Your task to perform on an android device: How much does a 2 bedroom apartment rent for in New York? Image 0: 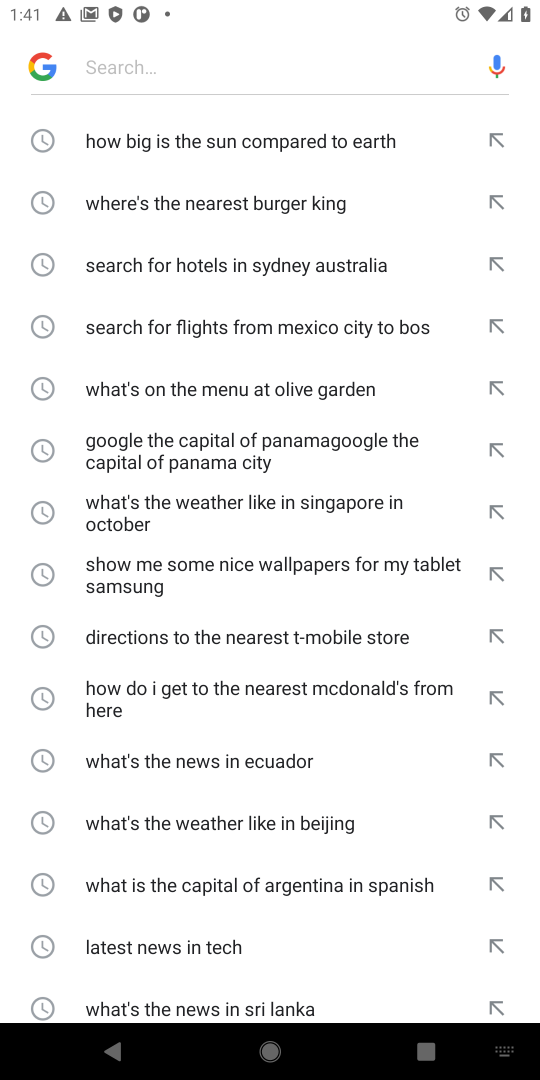
Step 0: type "How much does a 2 bedroom apartment rent for in New York?"
Your task to perform on an android device: How much does a 2 bedroom apartment rent for in New York? Image 1: 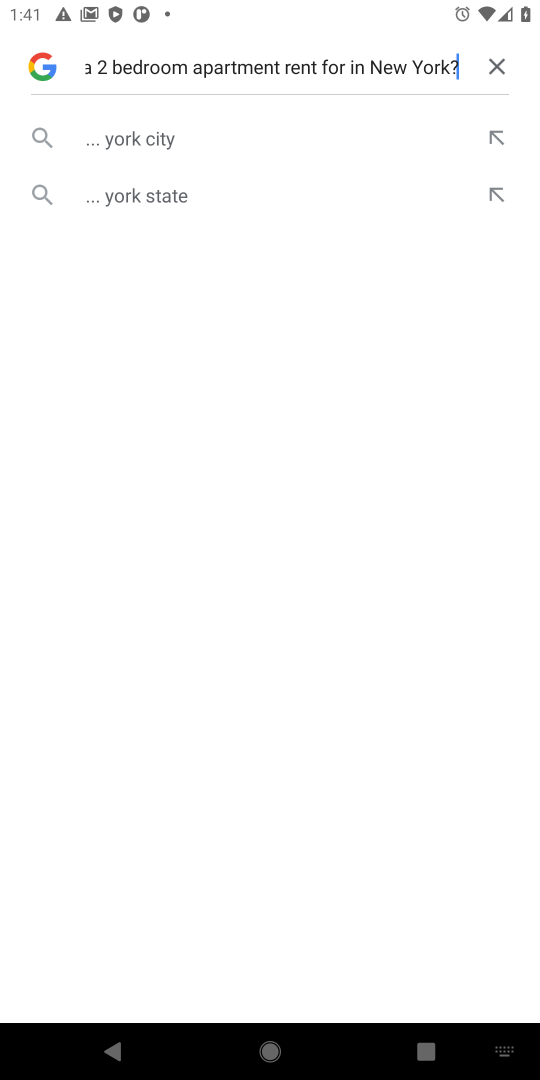
Step 1: click (176, 143)
Your task to perform on an android device: How much does a 2 bedroom apartment rent for in New York? Image 2: 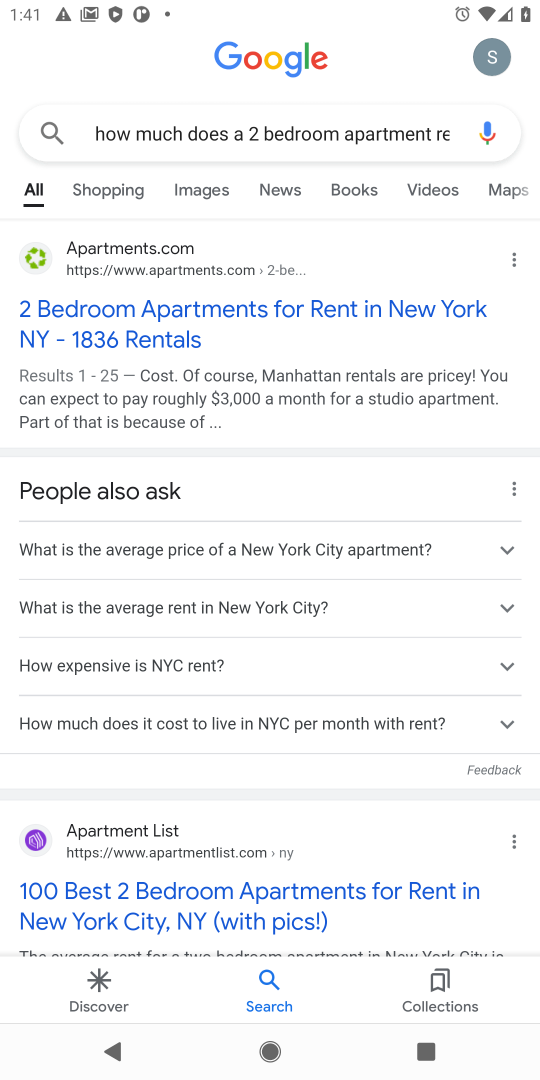
Step 2: click (237, 317)
Your task to perform on an android device: How much does a 2 bedroom apartment rent for in New York? Image 3: 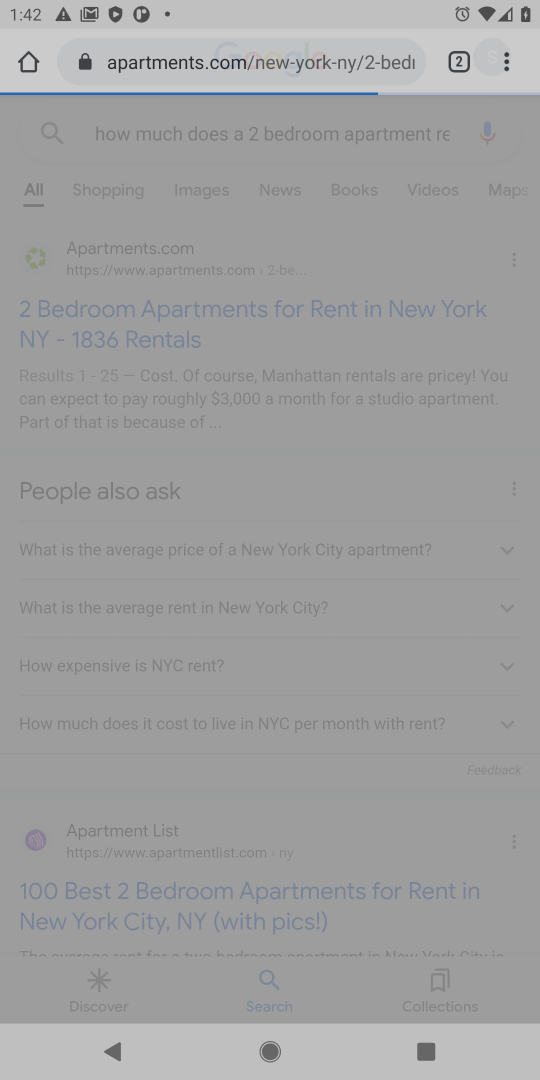
Step 3: task complete